Your task to perform on an android device: Search for sushi restaurants on Maps Image 0: 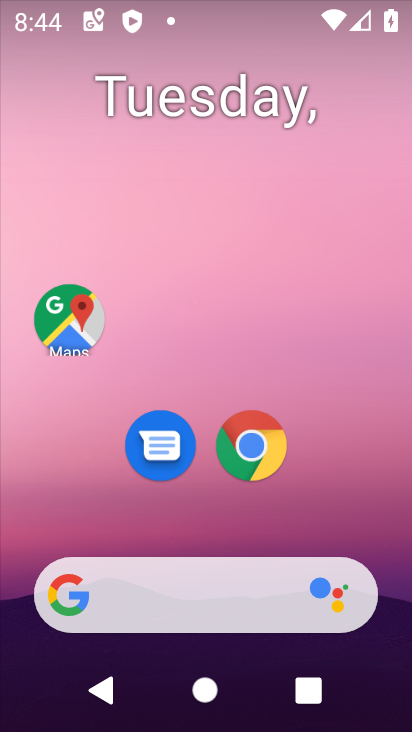
Step 0: click (74, 322)
Your task to perform on an android device: Search for sushi restaurants on Maps Image 1: 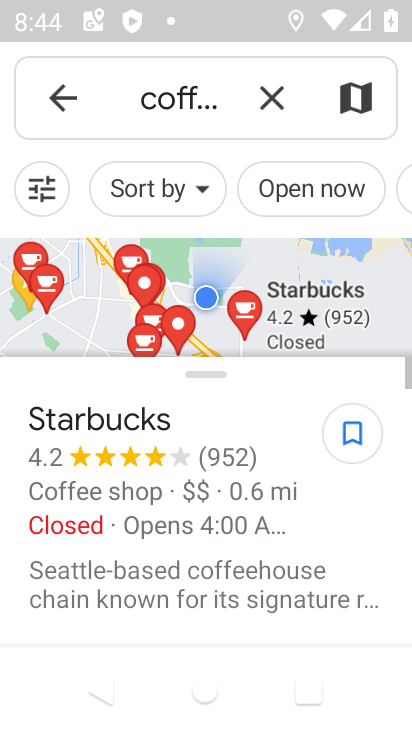
Step 1: click (273, 108)
Your task to perform on an android device: Search for sushi restaurants on Maps Image 2: 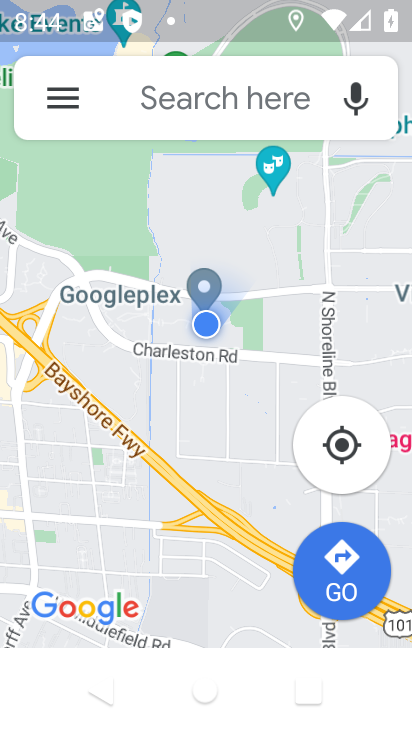
Step 2: click (214, 115)
Your task to perform on an android device: Search for sushi restaurants on Maps Image 3: 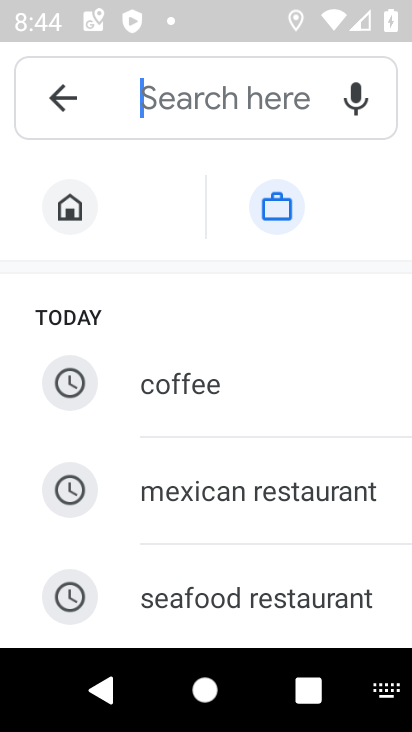
Step 3: type "sushi restaurant"
Your task to perform on an android device: Search for sushi restaurants on Maps Image 4: 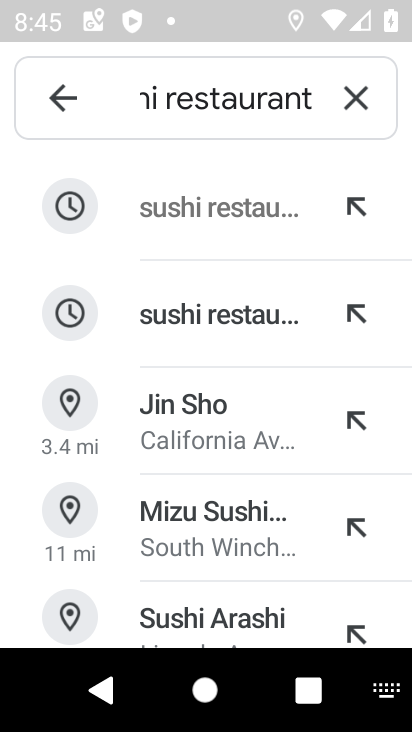
Step 4: click (241, 228)
Your task to perform on an android device: Search for sushi restaurants on Maps Image 5: 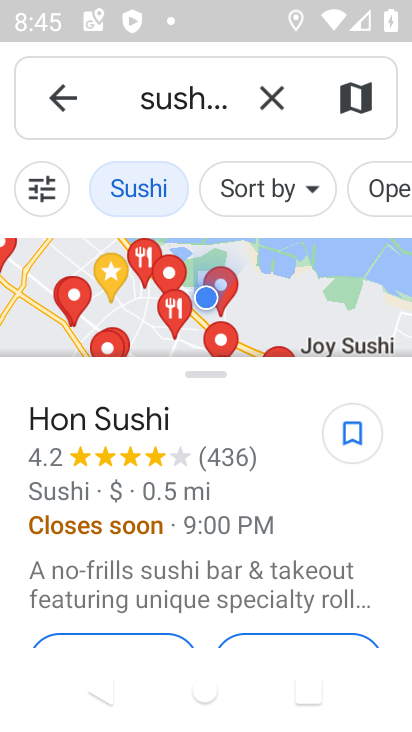
Step 5: task complete